Your task to perform on an android device: check out phone information Image 0: 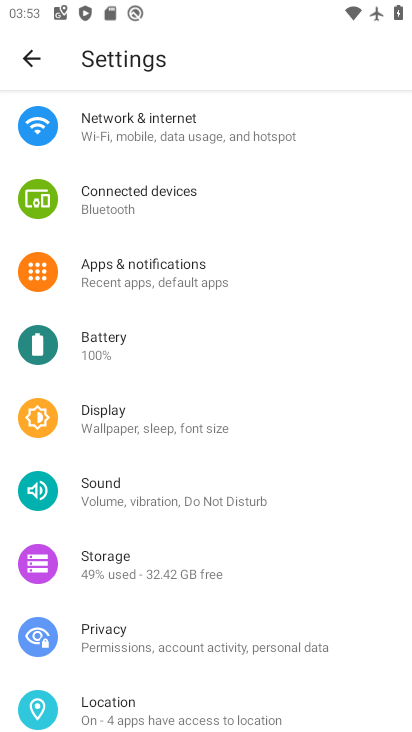
Step 0: drag from (150, 644) to (207, 129)
Your task to perform on an android device: check out phone information Image 1: 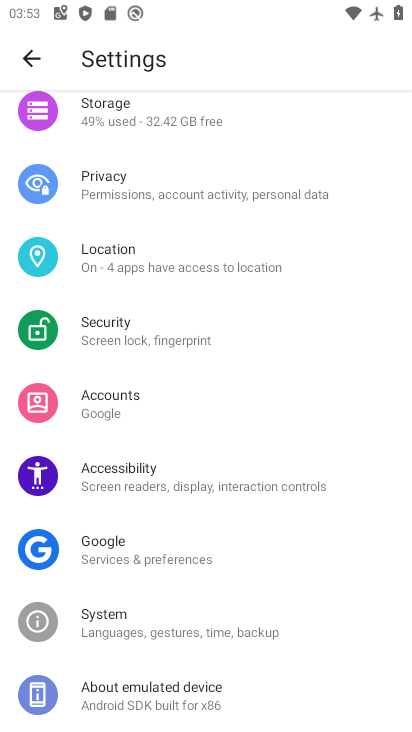
Step 1: click (167, 705)
Your task to perform on an android device: check out phone information Image 2: 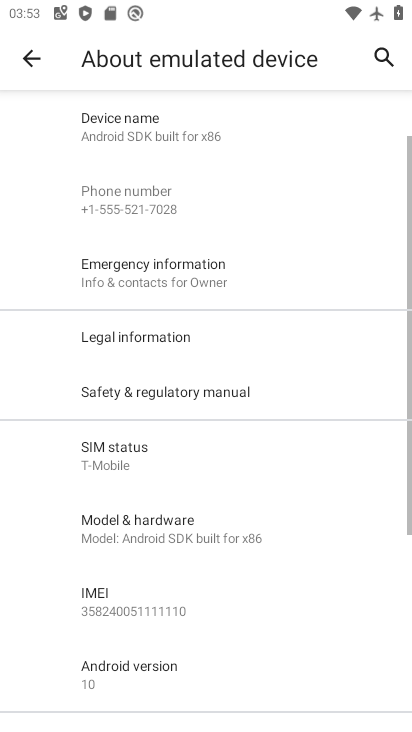
Step 2: task complete